Your task to perform on an android device: open chrome privacy settings Image 0: 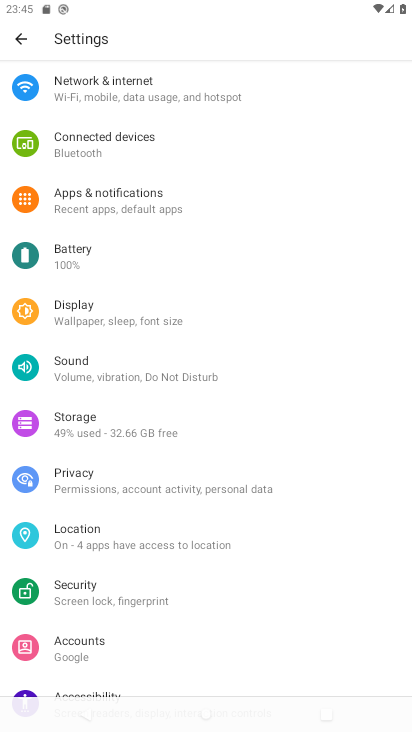
Step 0: click (187, 487)
Your task to perform on an android device: open chrome privacy settings Image 1: 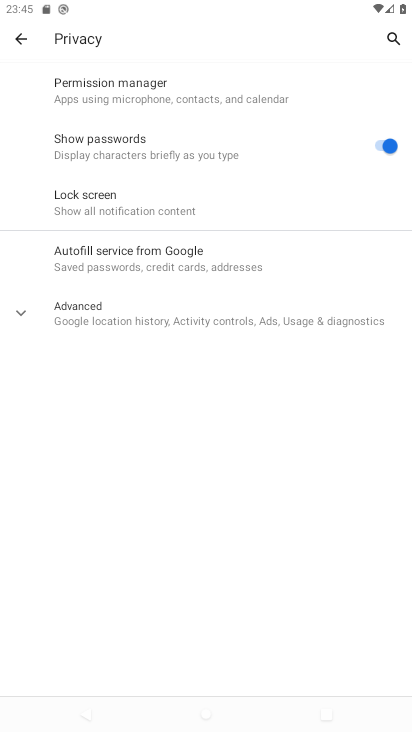
Step 1: task complete